Your task to perform on an android device: Is it going to rain this weekend? Image 0: 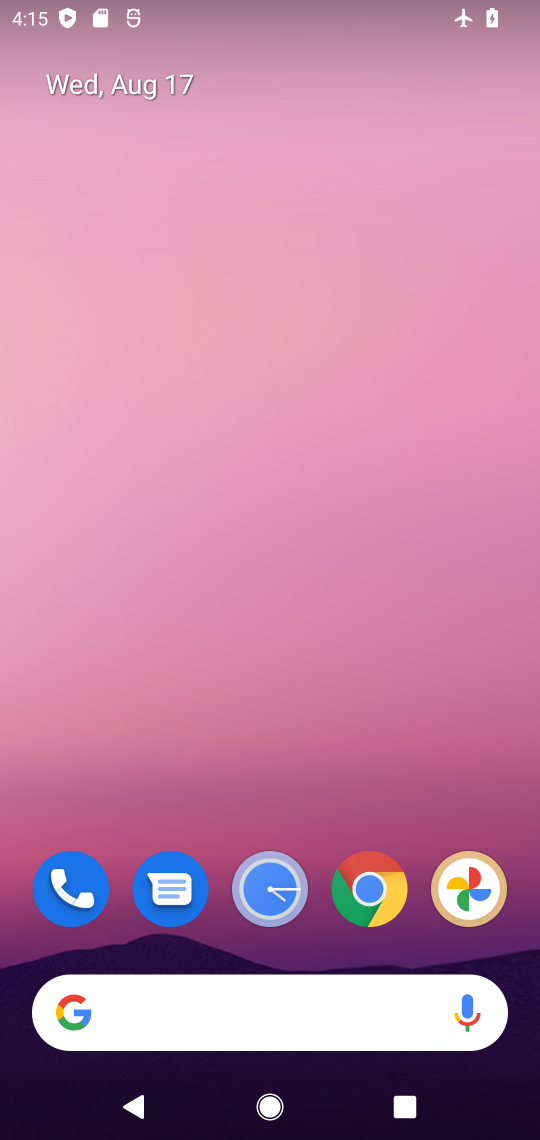
Step 0: drag from (297, 776) to (290, 181)
Your task to perform on an android device: Is it going to rain this weekend? Image 1: 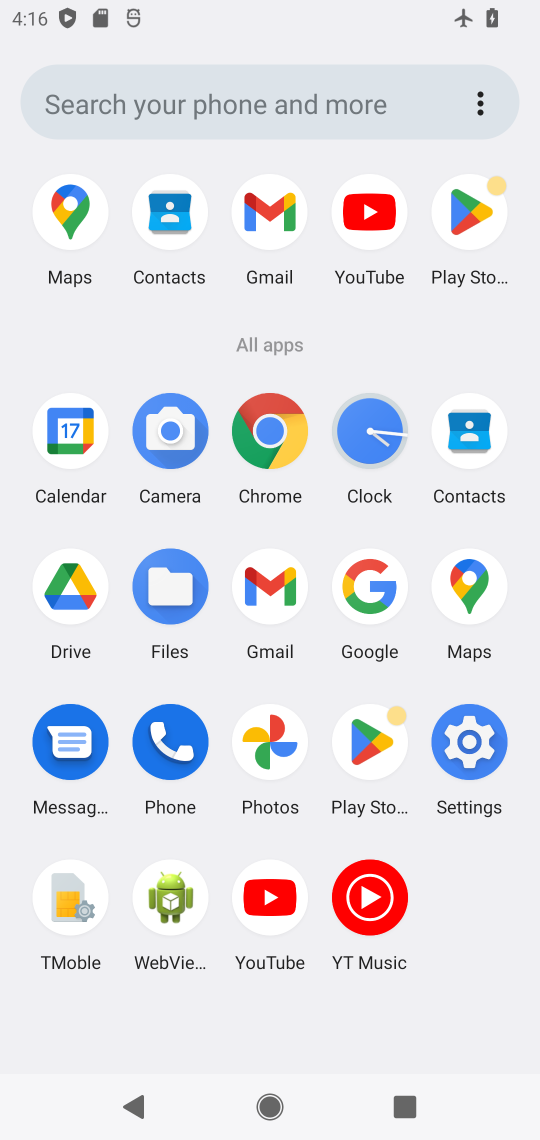
Step 1: click (372, 583)
Your task to perform on an android device: Is it going to rain this weekend? Image 2: 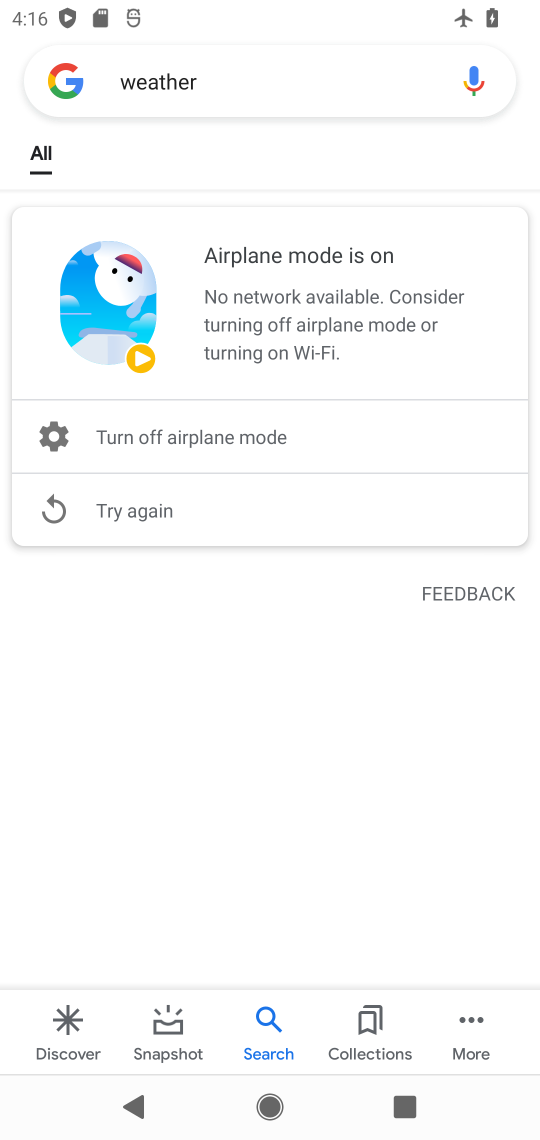
Step 2: click (237, 53)
Your task to perform on an android device: Is it going to rain this weekend? Image 3: 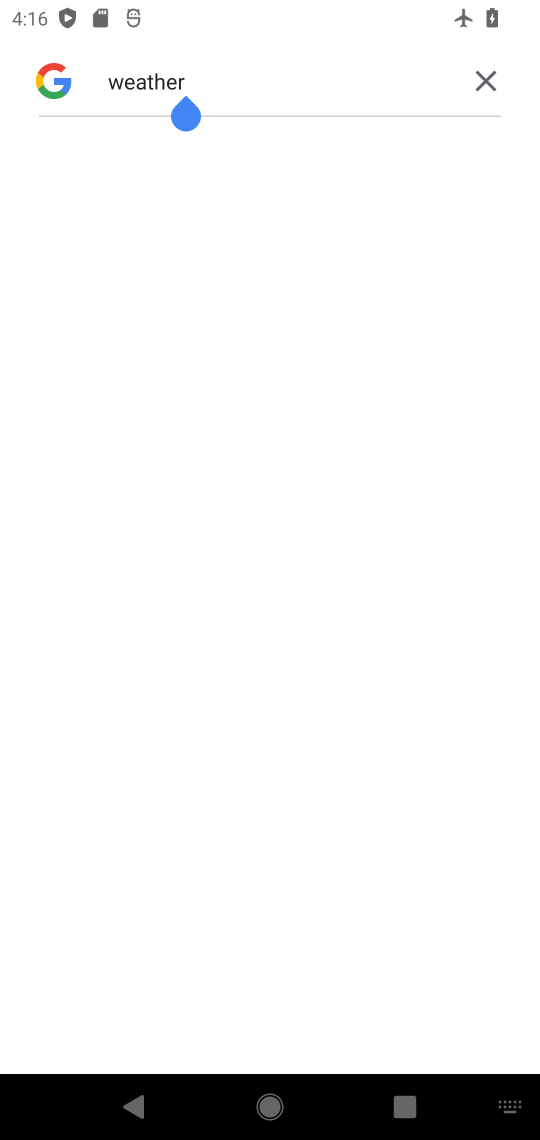
Step 3: click (478, 71)
Your task to perform on an android device: Is it going to rain this weekend? Image 4: 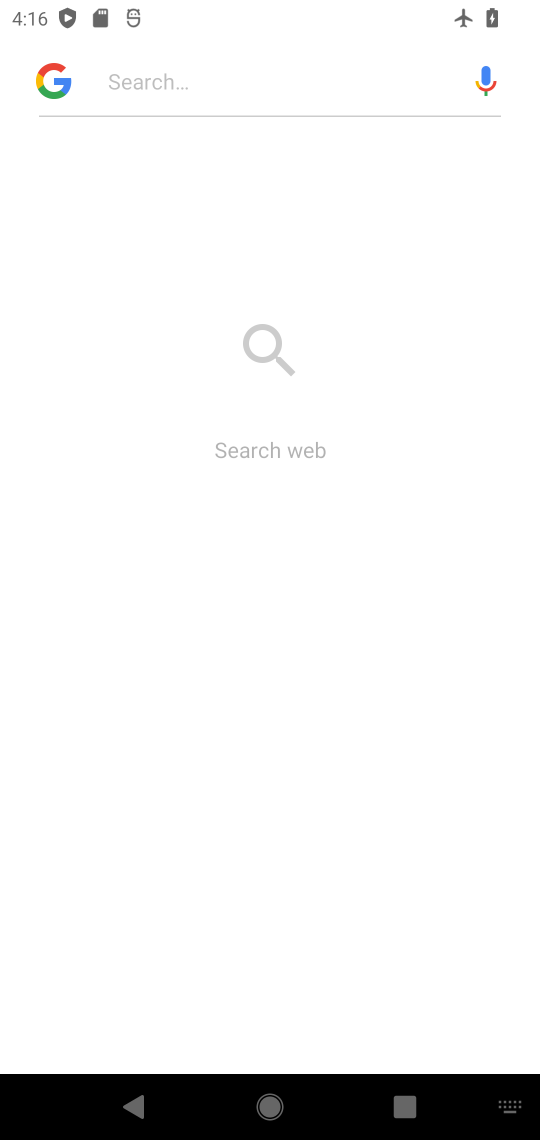
Step 4: type "weather"
Your task to perform on an android device: Is it going to rain this weekend? Image 5: 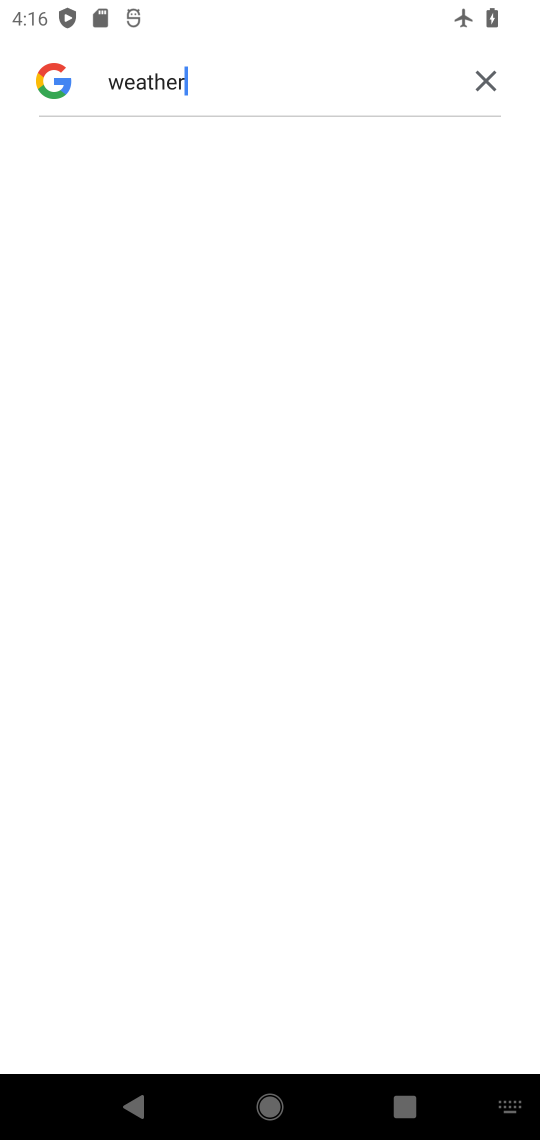
Step 5: task complete